Your task to perform on an android device: Open Google Chrome and click the shortcut for Amazon.com Image 0: 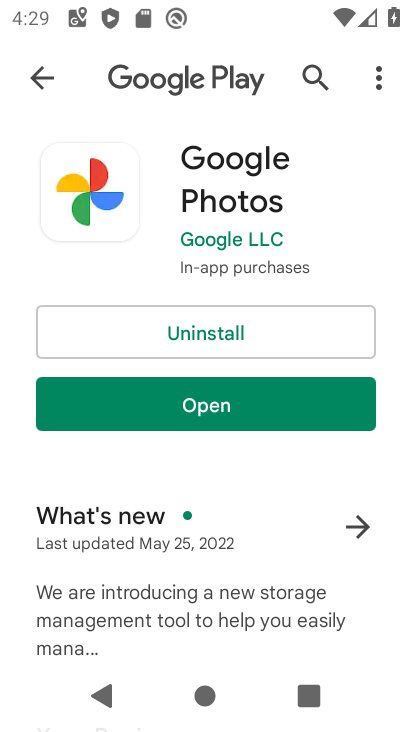
Step 0: drag from (212, 518) to (287, 152)
Your task to perform on an android device: Open Google Chrome and click the shortcut for Amazon.com Image 1: 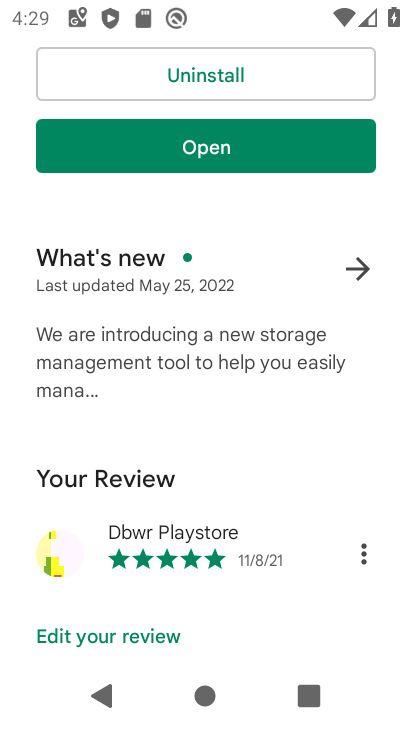
Step 1: press home button
Your task to perform on an android device: Open Google Chrome and click the shortcut for Amazon.com Image 2: 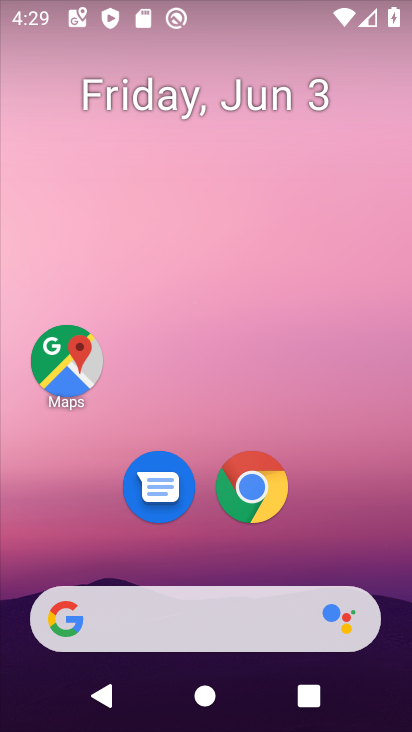
Step 2: drag from (221, 601) to (324, 169)
Your task to perform on an android device: Open Google Chrome and click the shortcut for Amazon.com Image 3: 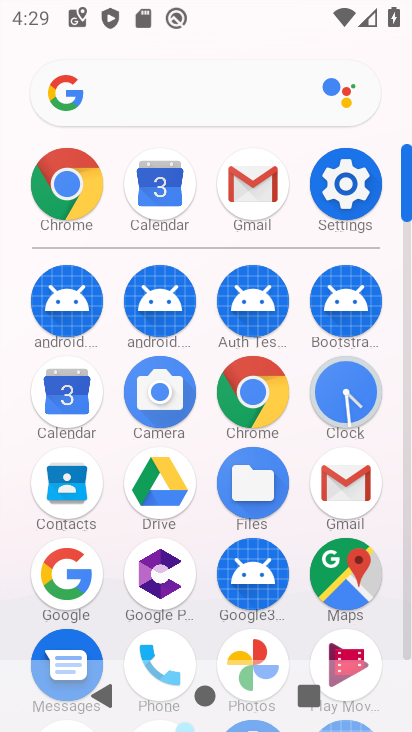
Step 3: click (62, 188)
Your task to perform on an android device: Open Google Chrome and click the shortcut for Amazon.com Image 4: 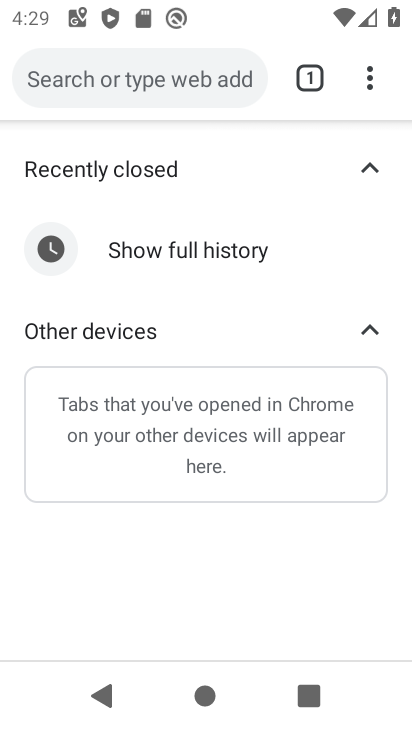
Step 4: click (361, 68)
Your task to perform on an android device: Open Google Chrome and click the shortcut for Amazon.com Image 5: 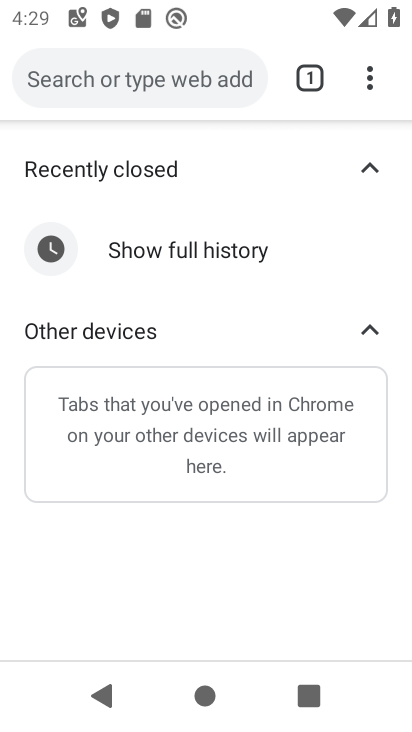
Step 5: click (308, 81)
Your task to perform on an android device: Open Google Chrome and click the shortcut for Amazon.com Image 6: 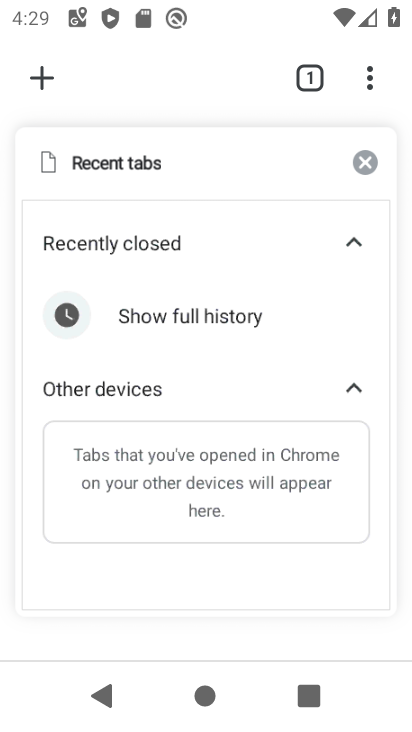
Step 6: click (47, 70)
Your task to perform on an android device: Open Google Chrome and click the shortcut for Amazon.com Image 7: 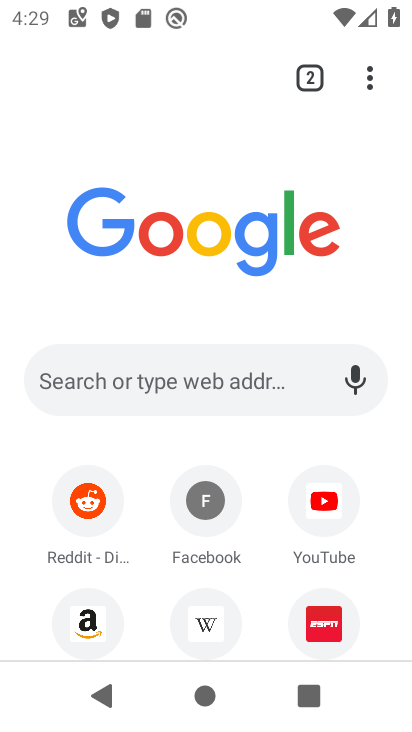
Step 7: click (73, 633)
Your task to perform on an android device: Open Google Chrome and click the shortcut for Amazon.com Image 8: 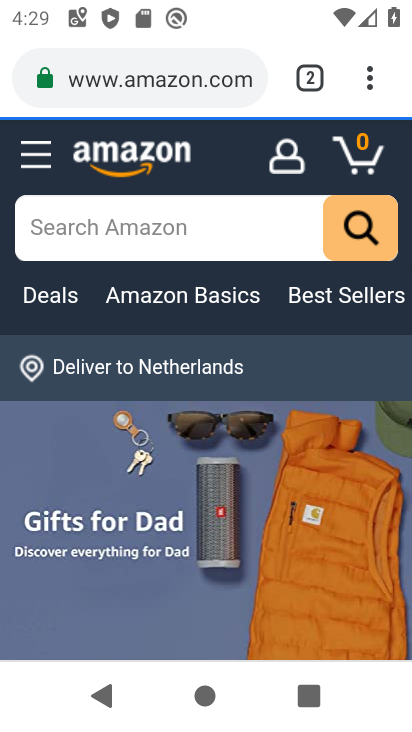
Step 8: task complete